Your task to perform on an android device: empty trash in the gmail app Image 0: 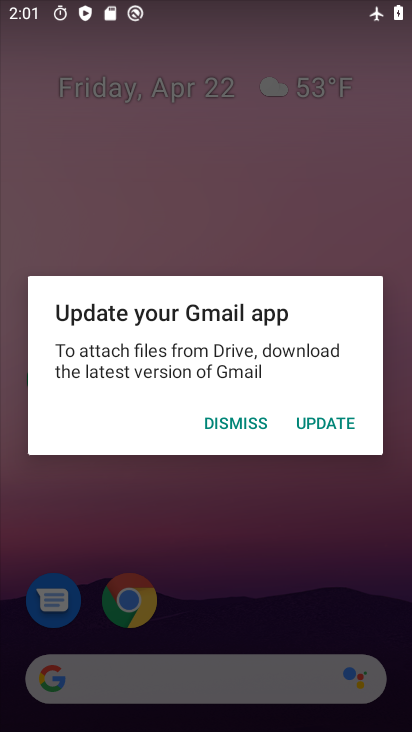
Step 0: press home button
Your task to perform on an android device: empty trash in the gmail app Image 1: 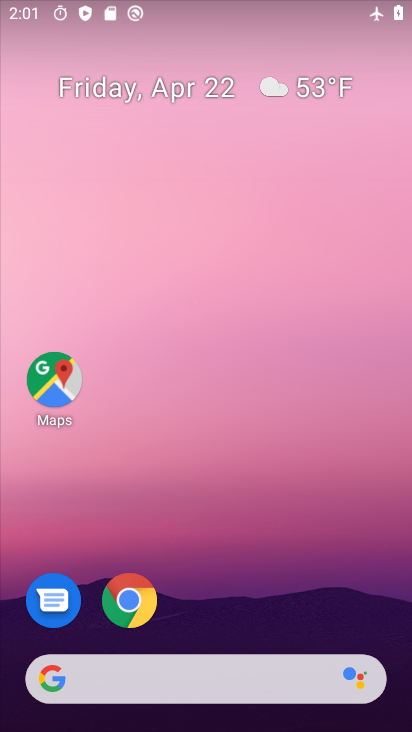
Step 1: drag from (210, 689) to (150, 173)
Your task to perform on an android device: empty trash in the gmail app Image 2: 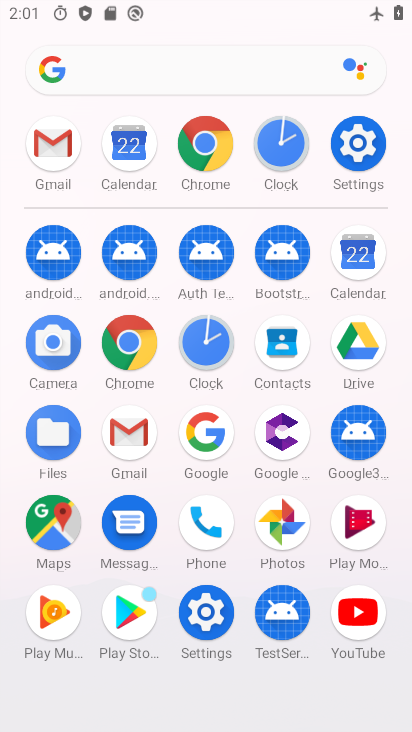
Step 2: click (52, 147)
Your task to perform on an android device: empty trash in the gmail app Image 3: 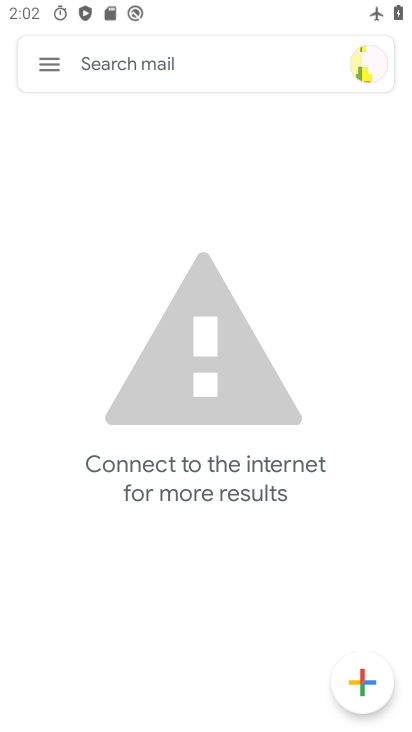
Step 3: click (50, 68)
Your task to perform on an android device: empty trash in the gmail app Image 4: 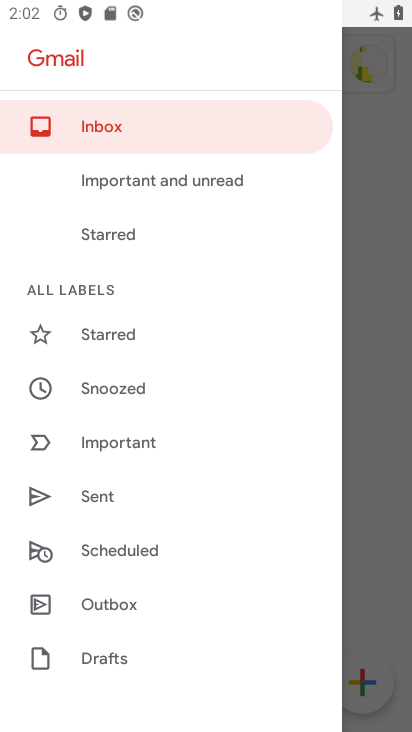
Step 4: drag from (119, 599) to (107, 275)
Your task to perform on an android device: empty trash in the gmail app Image 5: 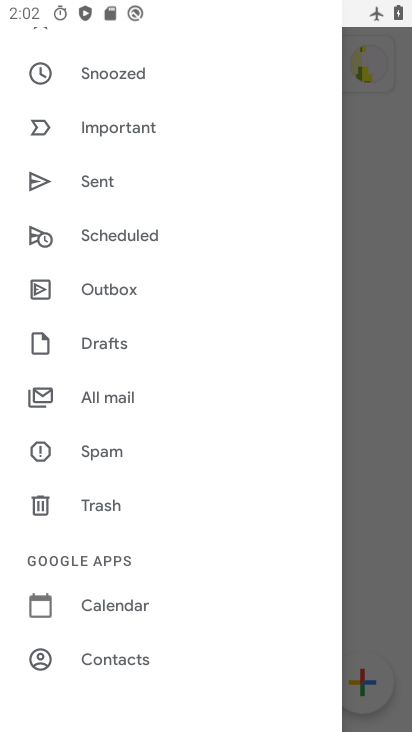
Step 5: click (102, 503)
Your task to perform on an android device: empty trash in the gmail app Image 6: 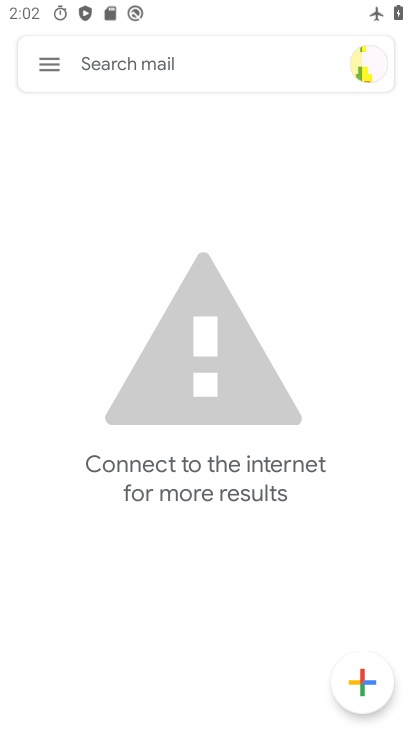
Step 6: task complete